Your task to perform on an android device: Go to settings Image 0: 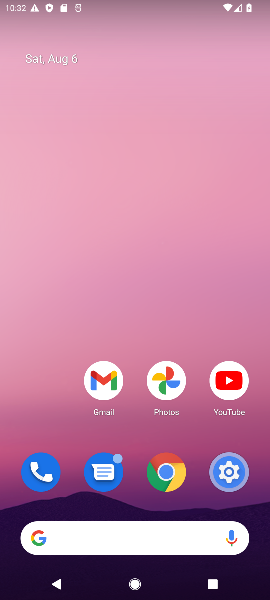
Step 0: drag from (209, 516) to (154, 38)
Your task to perform on an android device: Go to settings Image 1: 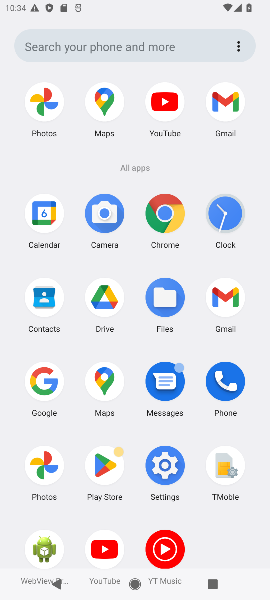
Step 1: click (163, 474)
Your task to perform on an android device: Go to settings Image 2: 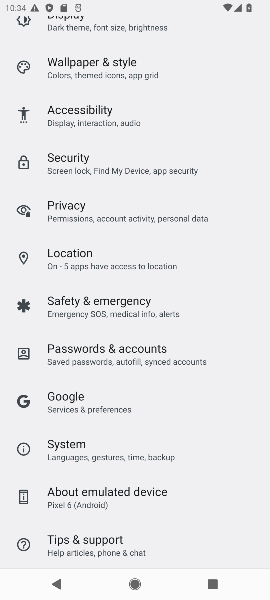
Step 2: task complete